Your task to perform on an android device: Open Google Maps and go to "Timeline" Image 0: 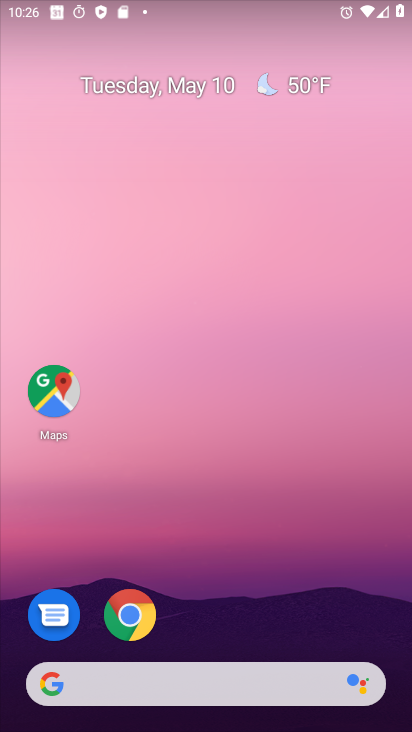
Step 0: press home button
Your task to perform on an android device: Open Google Maps and go to "Timeline" Image 1: 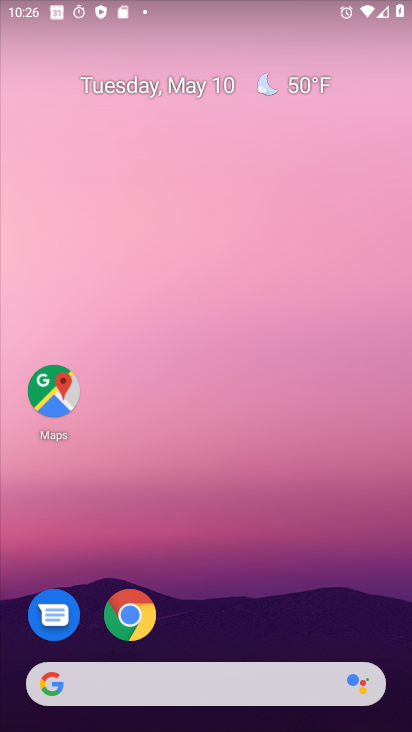
Step 1: click (57, 390)
Your task to perform on an android device: Open Google Maps and go to "Timeline" Image 2: 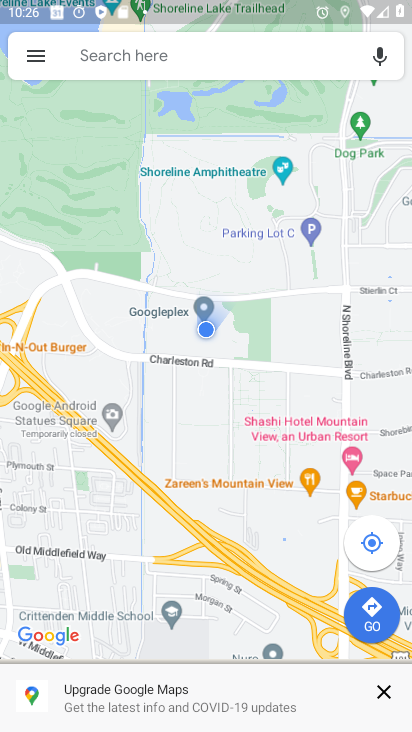
Step 2: click (35, 54)
Your task to perform on an android device: Open Google Maps and go to "Timeline" Image 3: 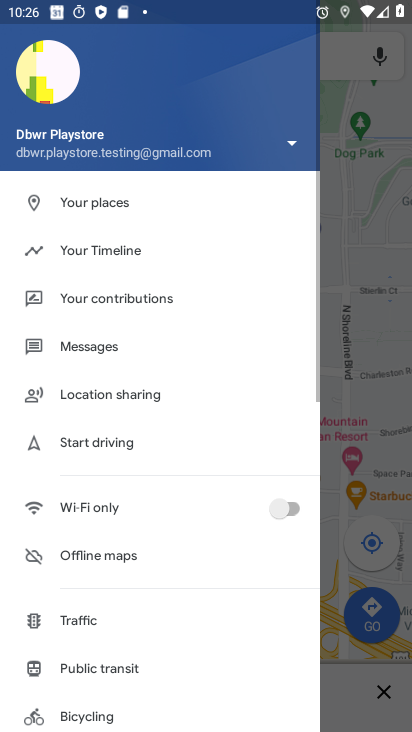
Step 3: click (134, 256)
Your task to perform on an android device: Open Google Maps and go to "Timeline" Image 4: 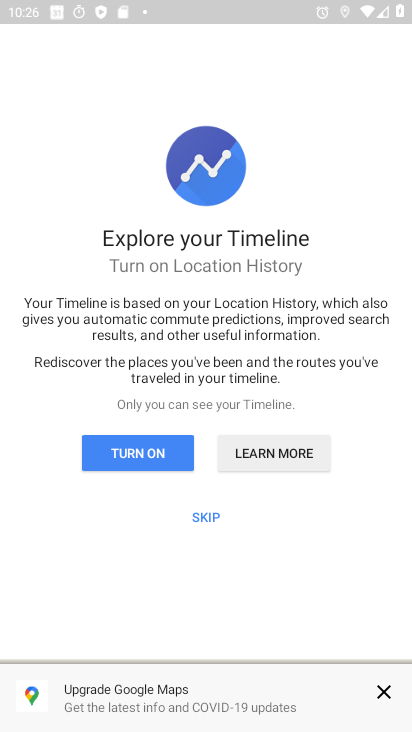
Step 4: click (144, 459)
Your task to perform on an android device: Open Google Maps and go to "Timeline" Image 5: 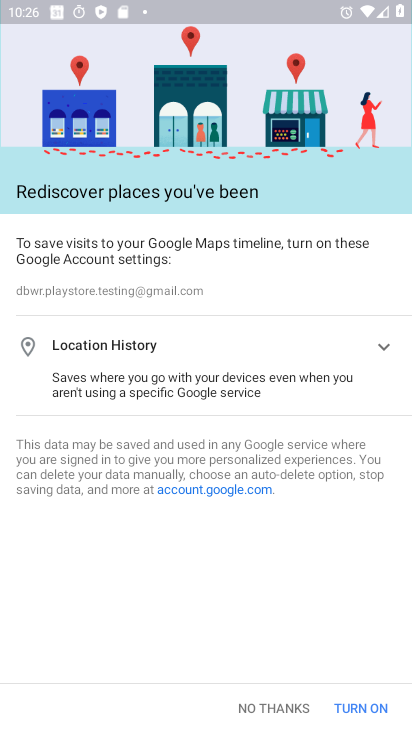
Step 5: click (364, 709)
Your task to perform on an android device: Open Google Maps and go to "Timeline" Image 6: 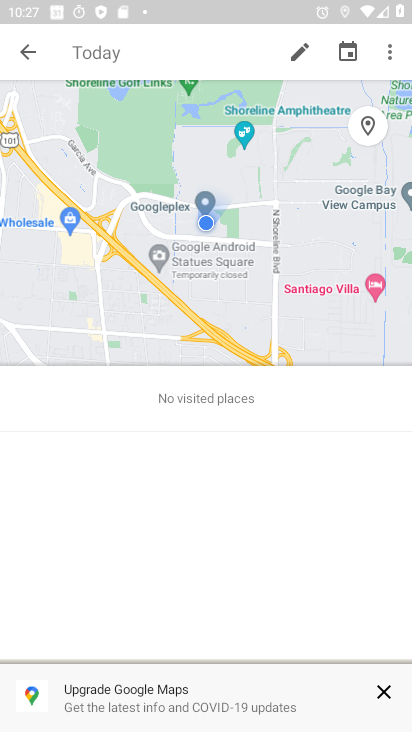
Step 6: task complete